Your task to perform on an android device: Search for pizza restaurants on Maps Image 0: 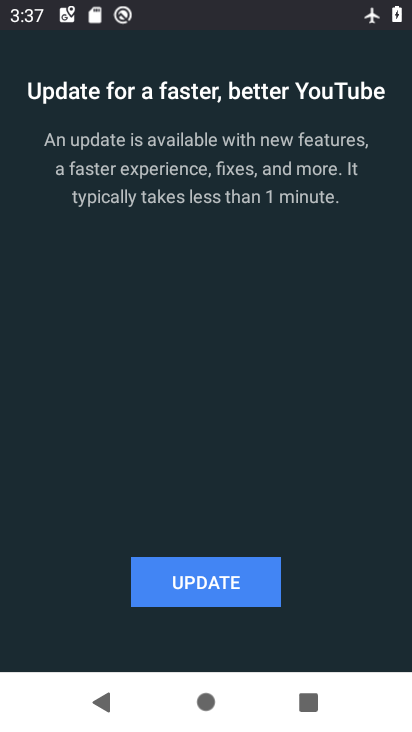
Step 0: press back button
Your task to perform on an android device: Search for pizza restaurants on Maps Image 1: 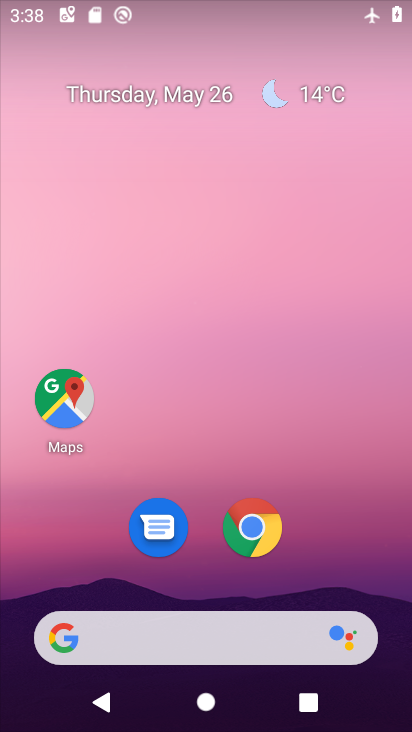
Step 1: click (85, 399)
Your task to perform on an android device: Search for pizza restaurants on Maps Image 2: 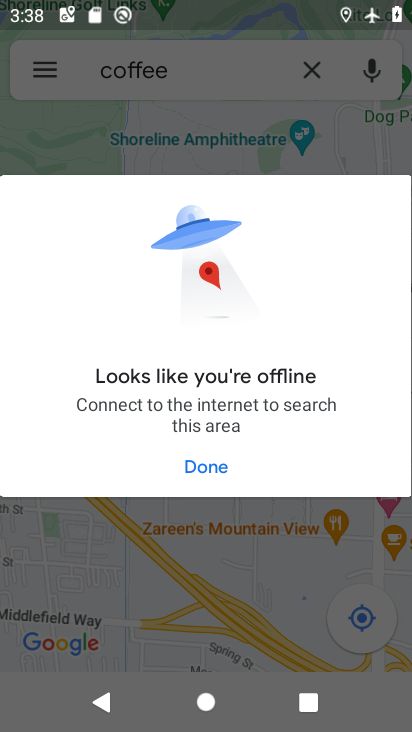
Step 2: task complete